Your task to perform on an android device: change the clock display to analog Image 0: 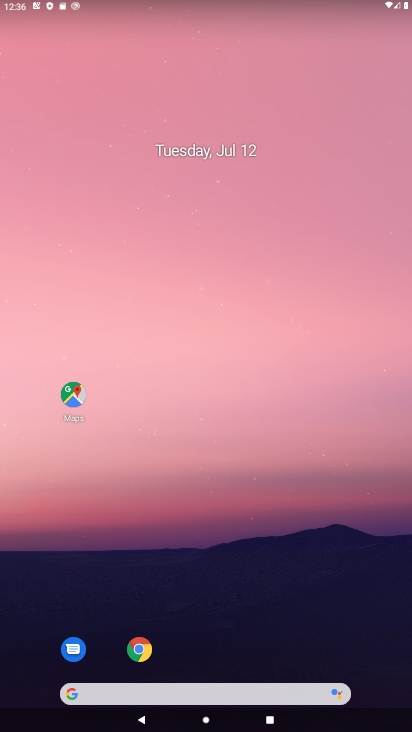
Step 0: drag from (185, 72) to (173, 24)
Your task to perform on an android device: change the clock display to analog Image 1: 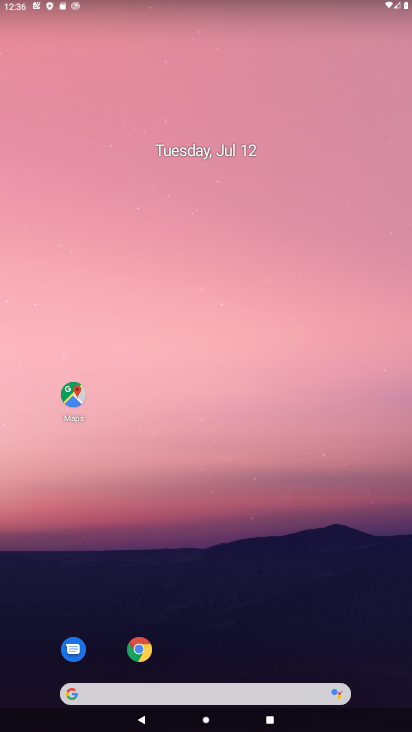
Step 1: drag from (382, 692) to (234, 78)
Your task to perform on an android device: change the clock display to analog Image 2: 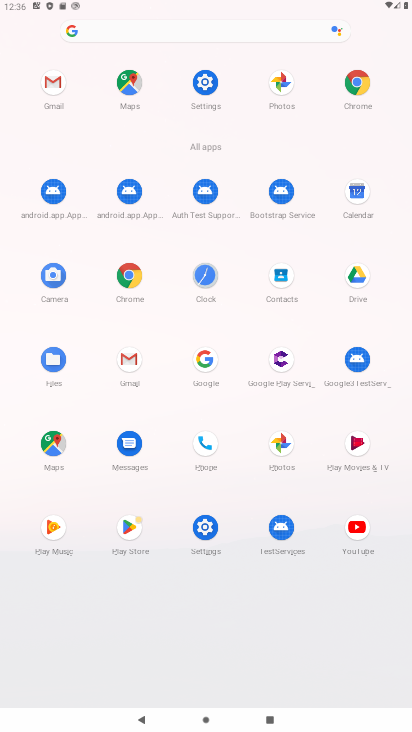
Step 2: click (201, 280)
Your task to perform on an android device: change the clock display to analog Image 3: 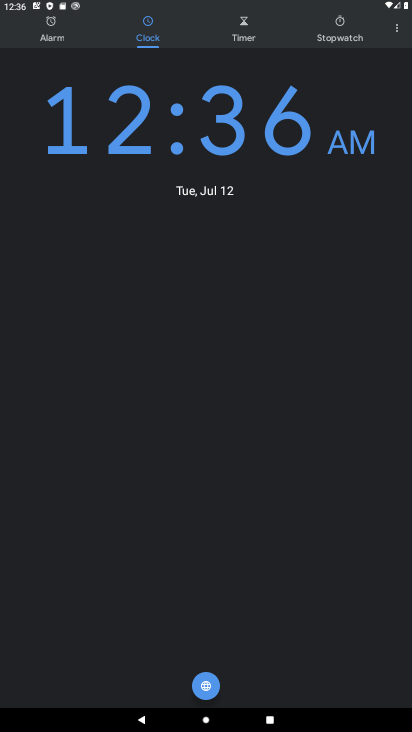
Step 3: click (391, 28)
Your task to perform on an android device: change the clock display to analog Image 4: 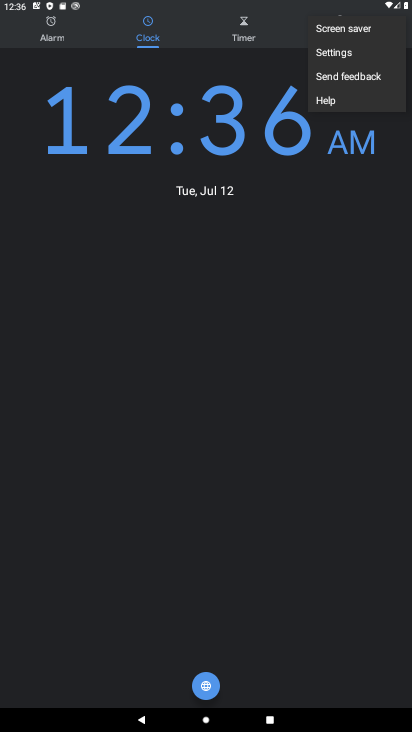
Step 4: click (337, 52)
Your task to perform on an android device: change the clock display to analog Image 5: 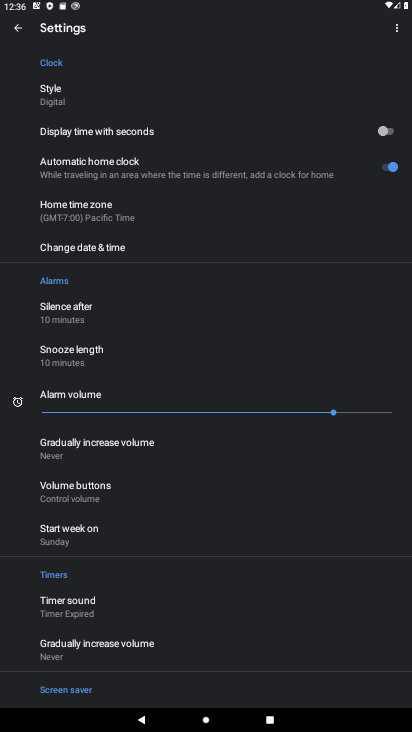
Step 5: click (63, 104)
Your task to perform on an android device: change the clock display to analog Image 6: 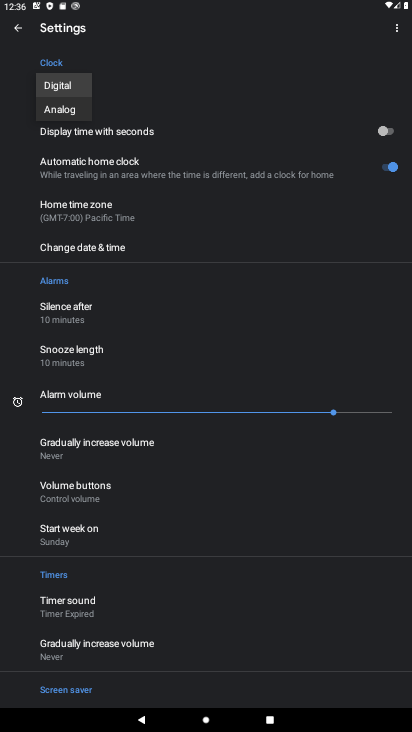
Step 6: click (64, 109)
Your task to perform on an android device: change the clock display to analog Image 7: 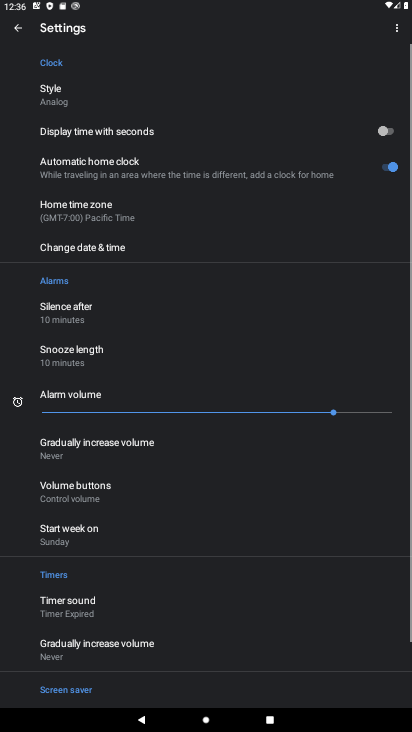
Step 7: task complete